Your task to perform on an android device: Open ESPN.com Image 0: 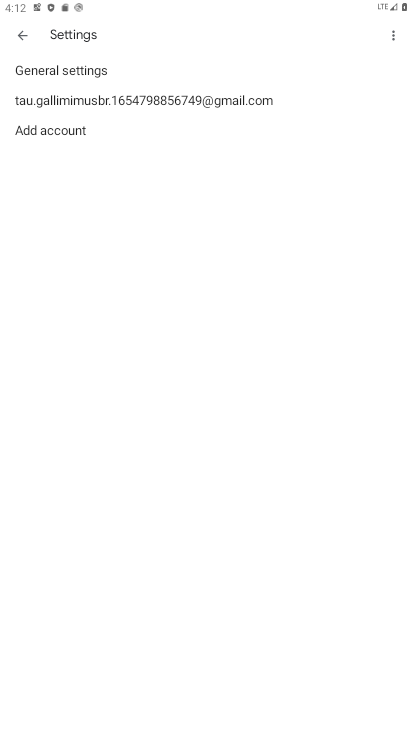
Step 0: press home button
Your task to perform on an android device: Open ESPN.com Image 1: 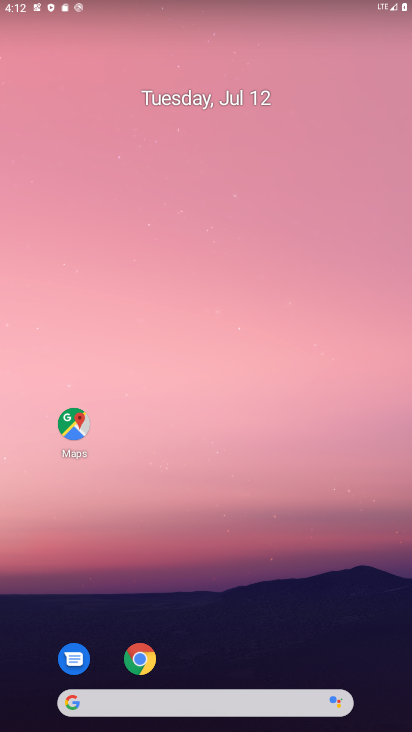
Step 1: drag from (213, 727) to (199, 232)
Your task to perform on an android device: Open ESPN.com Image 2: 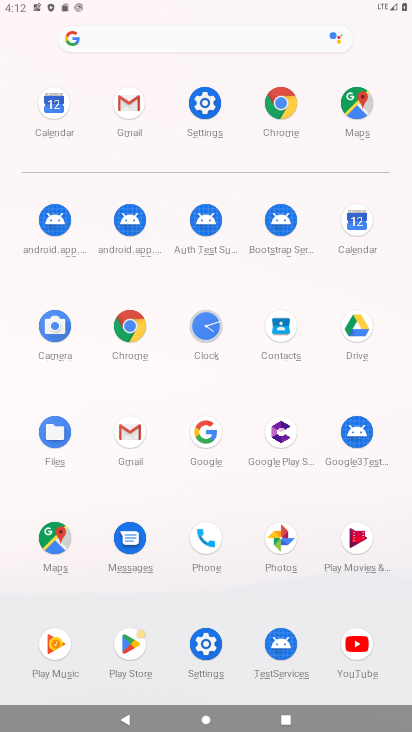
Step 2: click (129, 327)
Your task to perform on an android device: Open ESPN.com Image 3: 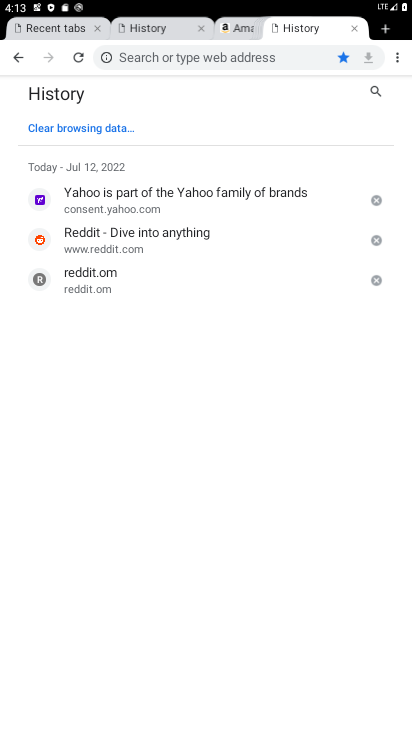
Step 3: click (395, 57)
Your task to perform on an android device: Open ESPN.com Image 4: 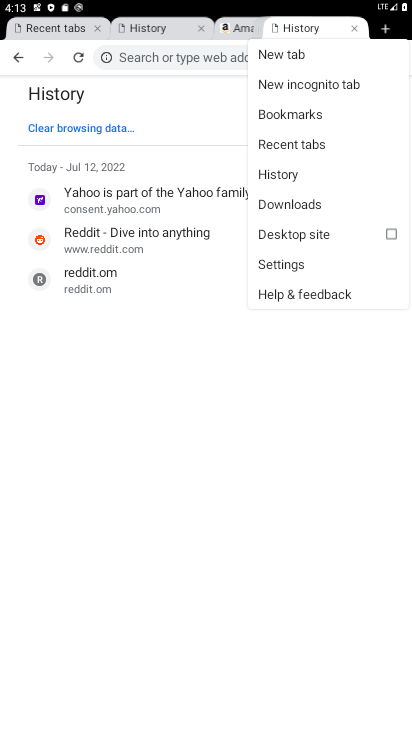
Step 4: click (294, 53)
Your task to perform on an android device: Open ESPN.com Image 5: 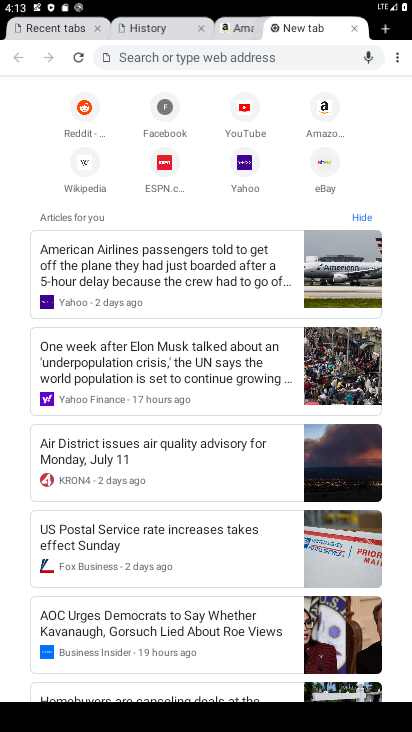
Step 5: click (167, 160)
Your task to perform on an android device: Open ESPN.com Image 6: 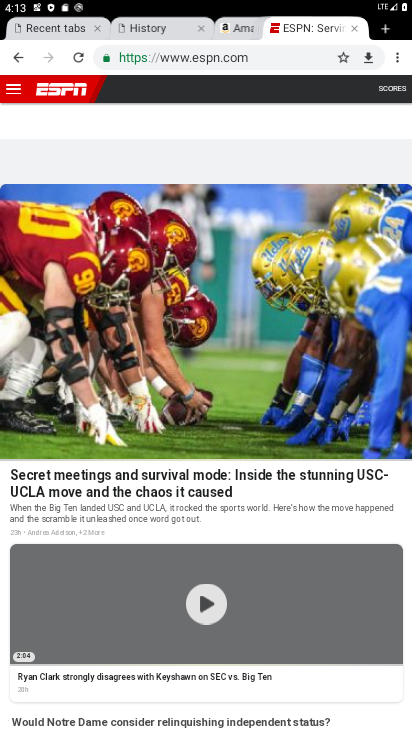
Step 6: task complete